Your task to perform on an android device: turn on bluetooth scan Image 0: 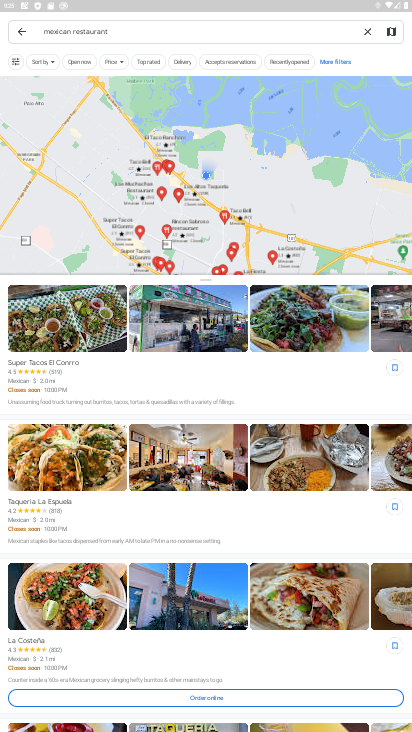
Step 0: press home button
Your task to perform on an android device: turn on bluetooth scan Image 1: 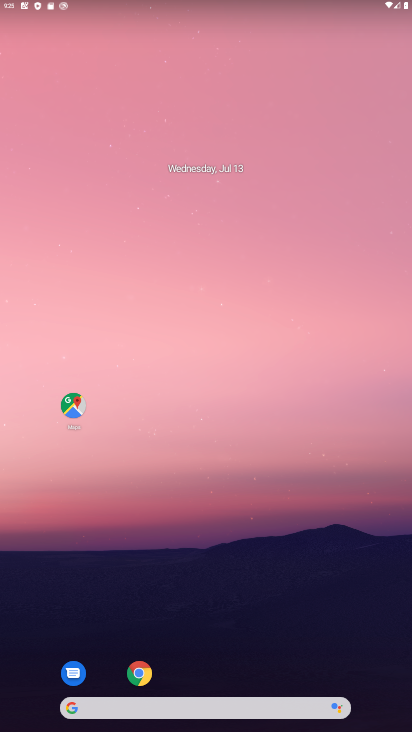
Step 1: drag from (202, 614) to (186, 196)
Your task to perform on an android device: turn on bluetooth scan Image 2: 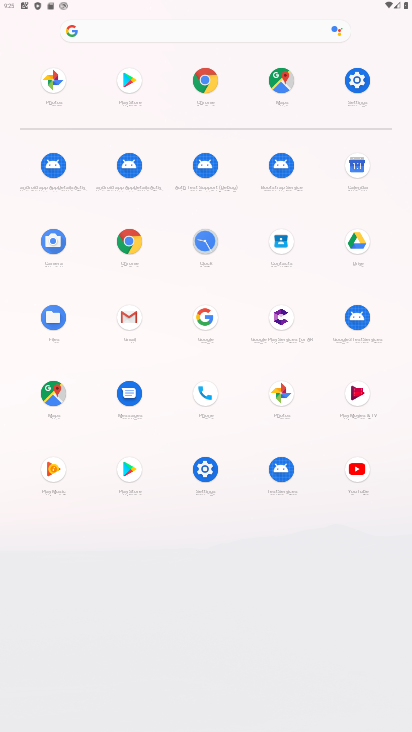
Step 2: click (353, 89)
Your task to perform on an android device: turn on bluetooth scan Image 3: 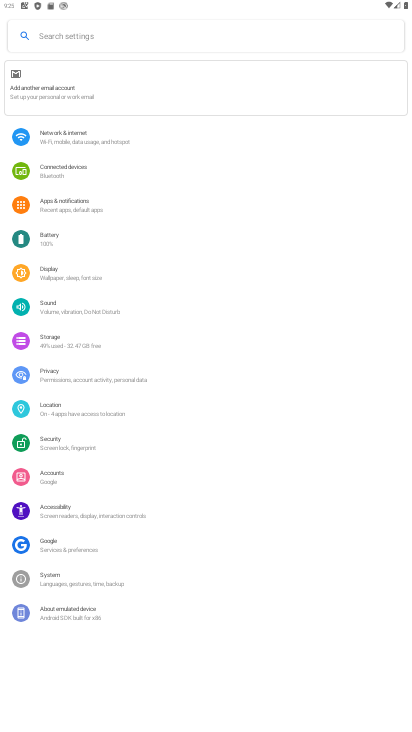
Step 3: click (81, 411)
Your task to perform on an android device: turn on bluetooth scan Image 4: 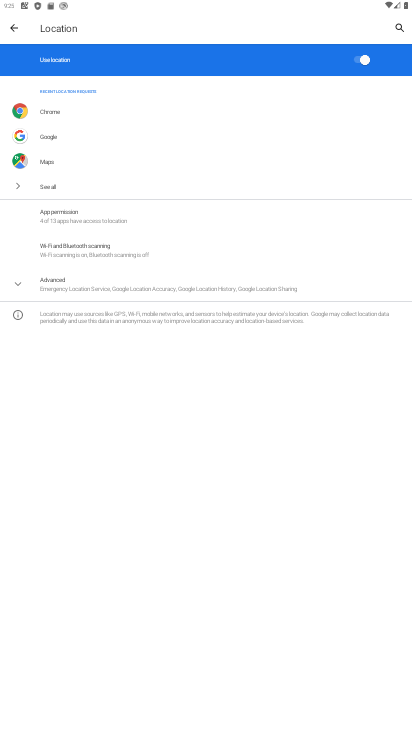
Step 4: click (120, 292)
Your task to perform on an android device: turn on bluetooth scan Image 5: 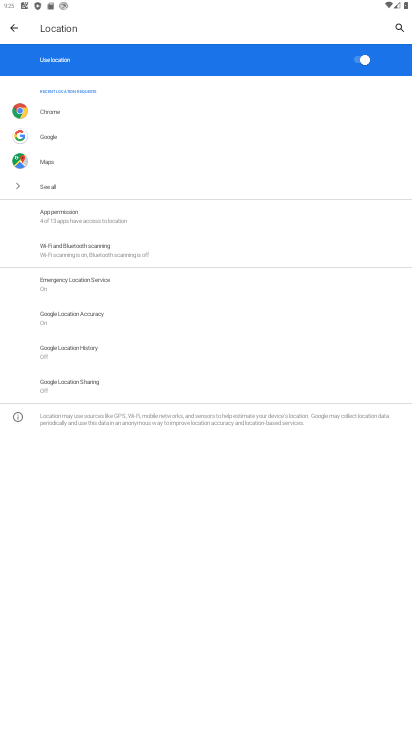
Step 5: click (134, 256)
Your task to perform on an android device: turn on bluetooth scan Image 6: 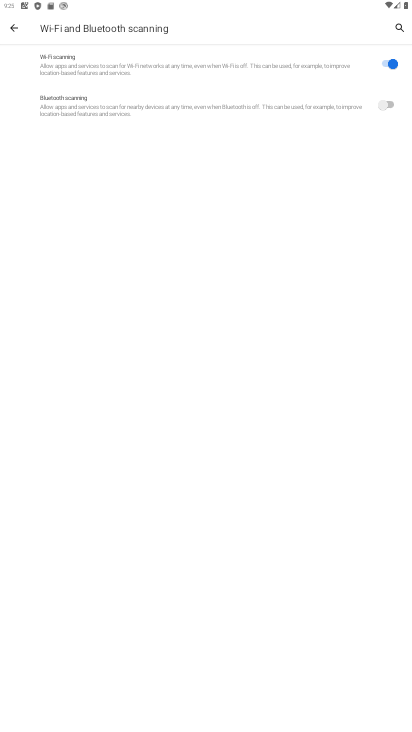
Step 6: click (389, 110)
Your task to perform on an android device: turn on bluetooth scan Image 7: 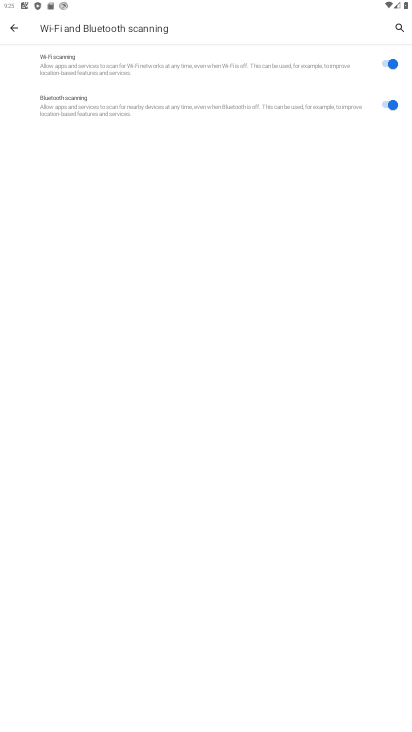
Step 7: task complete